Your task to perform on an android device: Open Google Maps Image 0: 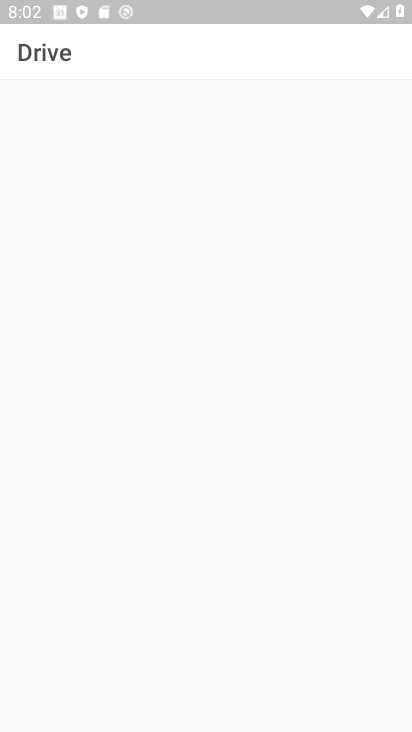
Step 0: click (128, 606)
Your task to perform on an android device: Open Google Maps Image 1: 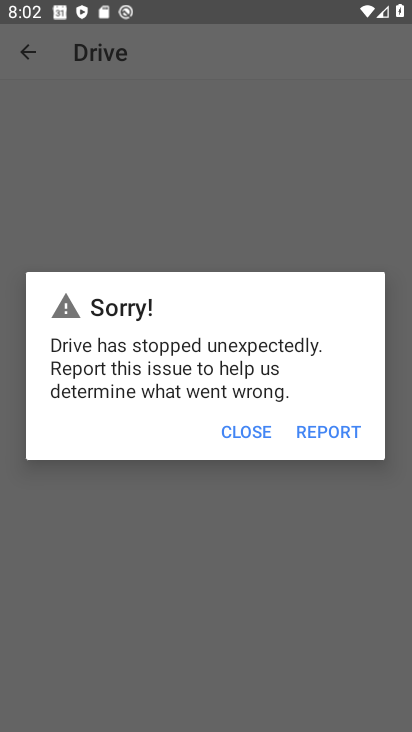
Step 1: press home button
Your task to perform on an android device: Open Google Maps Image 2: 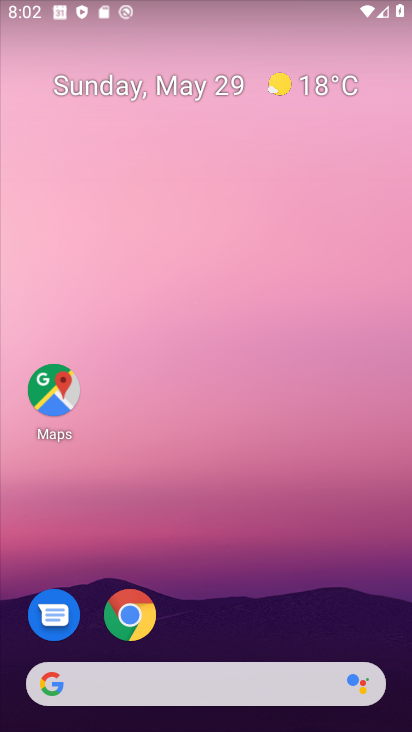
Step 2: click (49, 402)
Your task to perform on an android device: Open Google Maps Image 3: 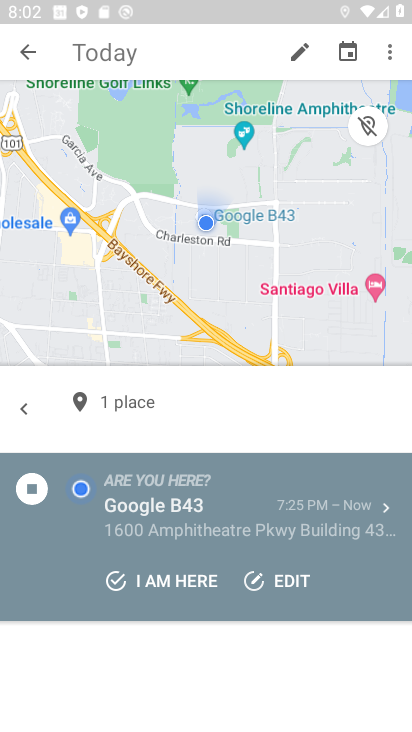
Step 3: click (22, 48)
Your task to perform on an android device: Open Google Maps Image 4: 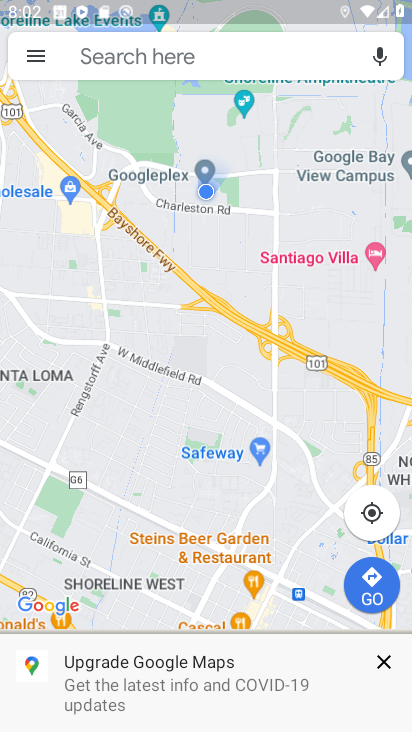
Step 4: click (387, 666)
Your task to perform on an android device: Open Google Maps Image 5: 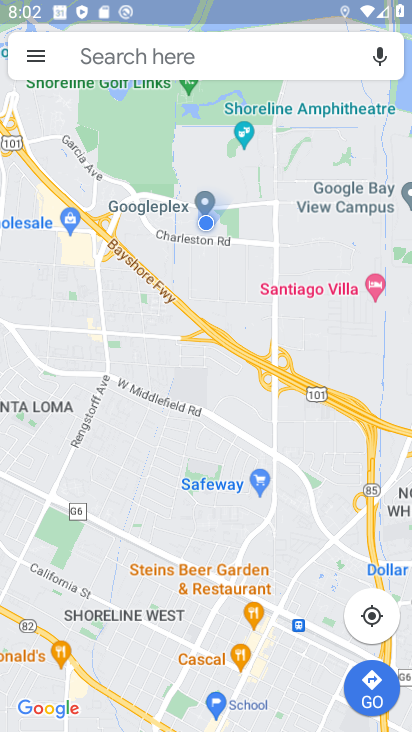
Step 5: task complete